Your task to perform on an android device: toggle translation in the chrome app Image 0: 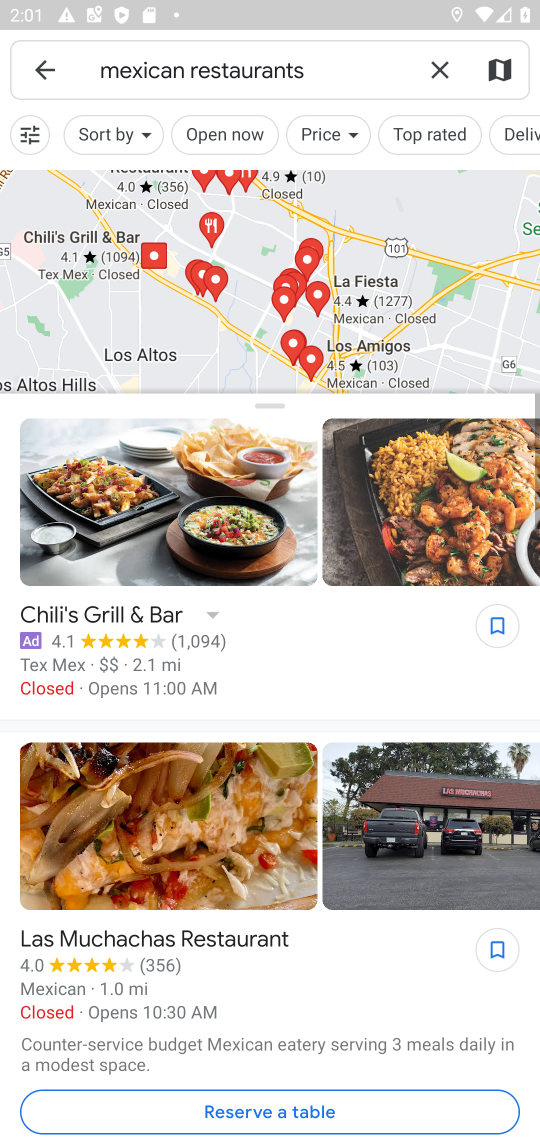
Step 0: press home button
Your task to perform on an android device: toggle translation in the chrome app Image 1: 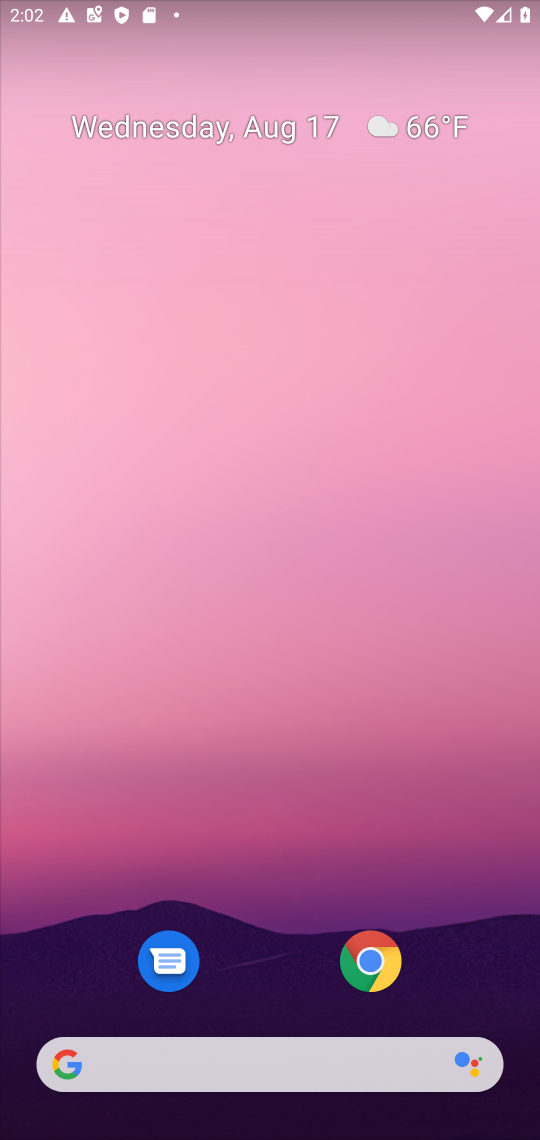
Step 1: click (391, 981)
Your task to perform on an android device: toggle translation in the chrome app Image 2: 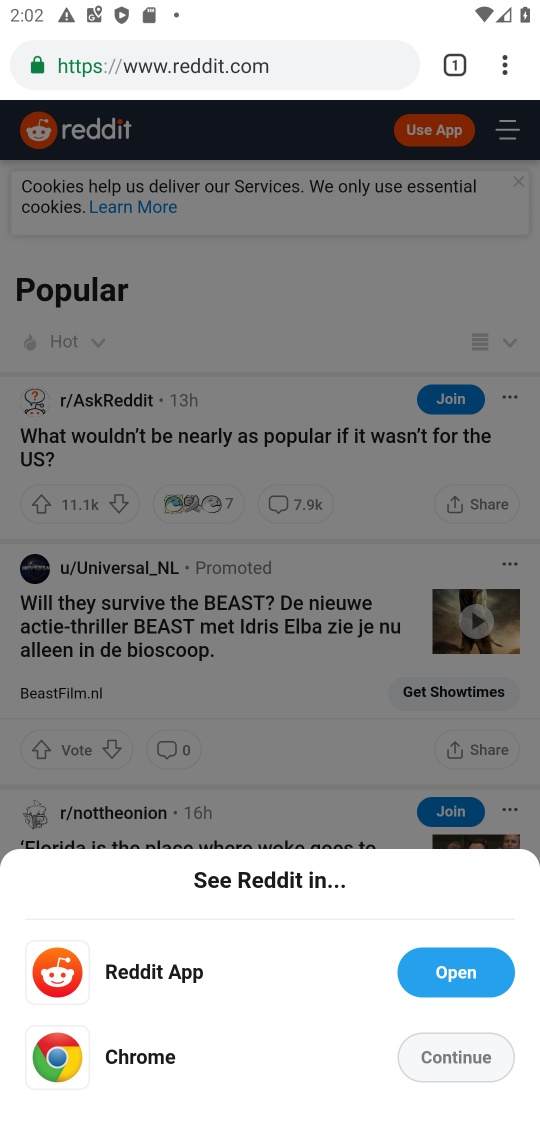
Step 2: click (510, 77)
Your task to perform on an android device: toggle translation in the chrome app Image 3: 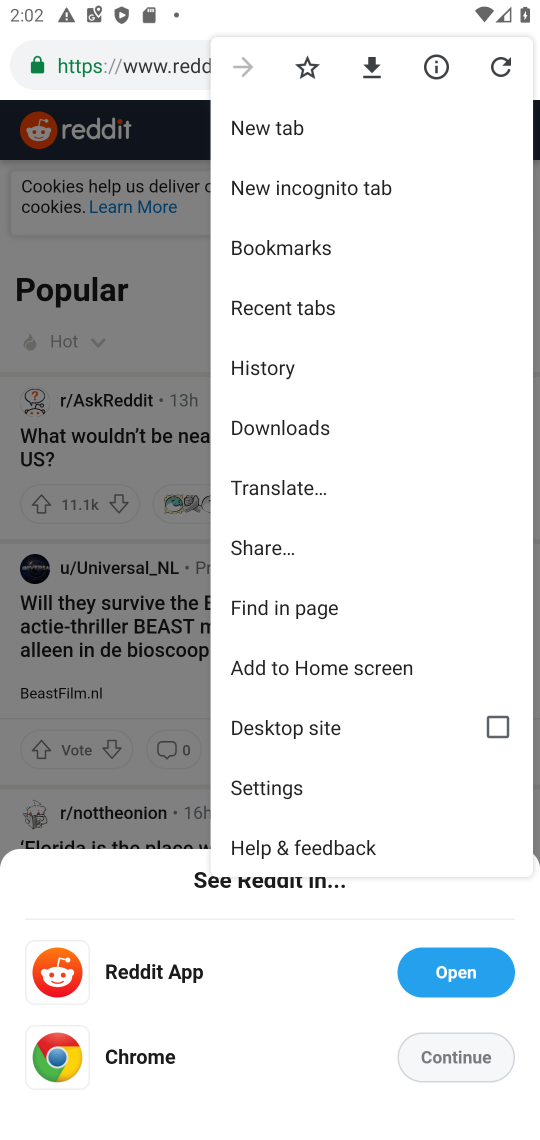
Step 3: click (294, 490)
Your task to perform on an android device: toggle translation in the chrome app Image 4: 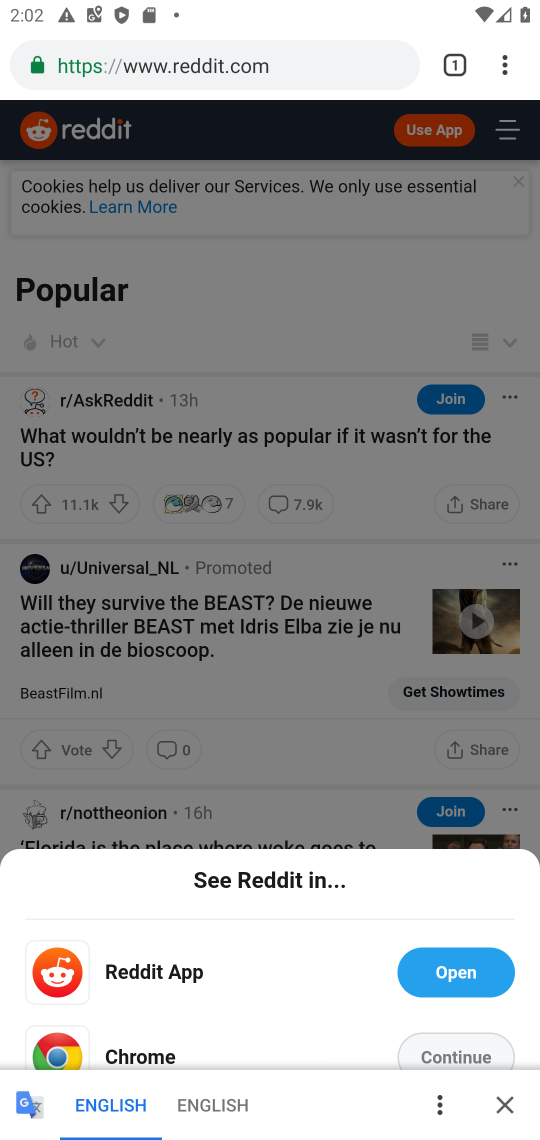
Step 4: click (294, 490)
Your task to perform on an android device: toggle translation in the chrome app Image 5: 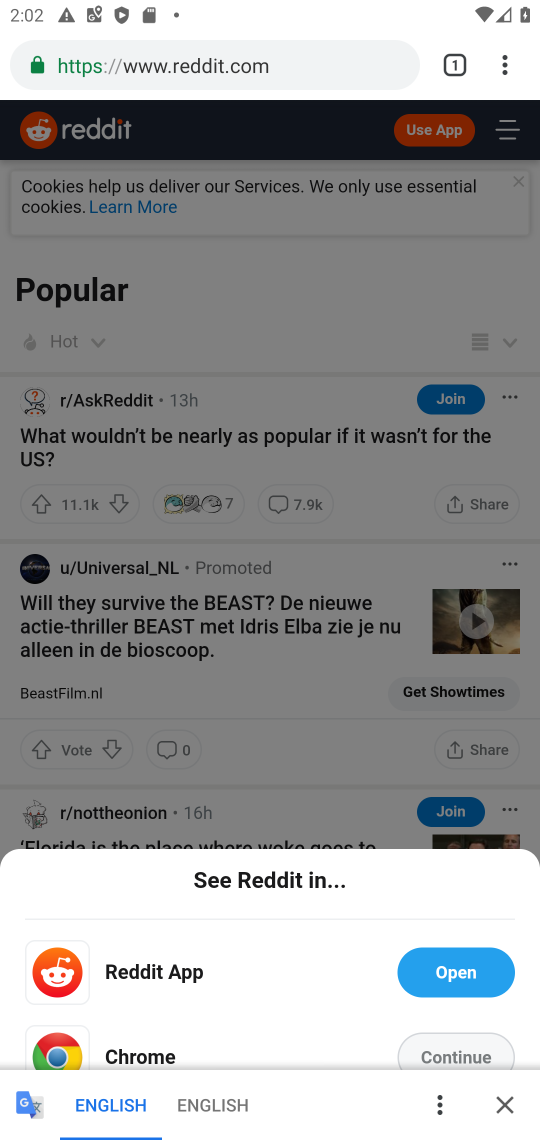
Step 5: click (430, 1104)
Your task to perform on an android device: toggle translation in the chrome app Image 6: 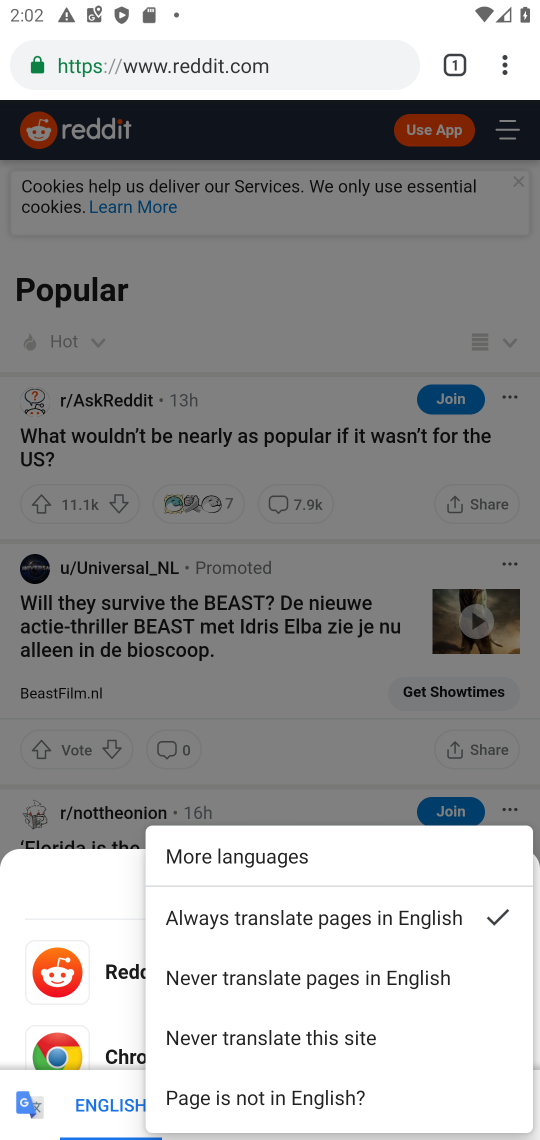
Step 6: click (366, 1032)
Your task to perform on an android device: toggle translation in the chrome app Image 7: 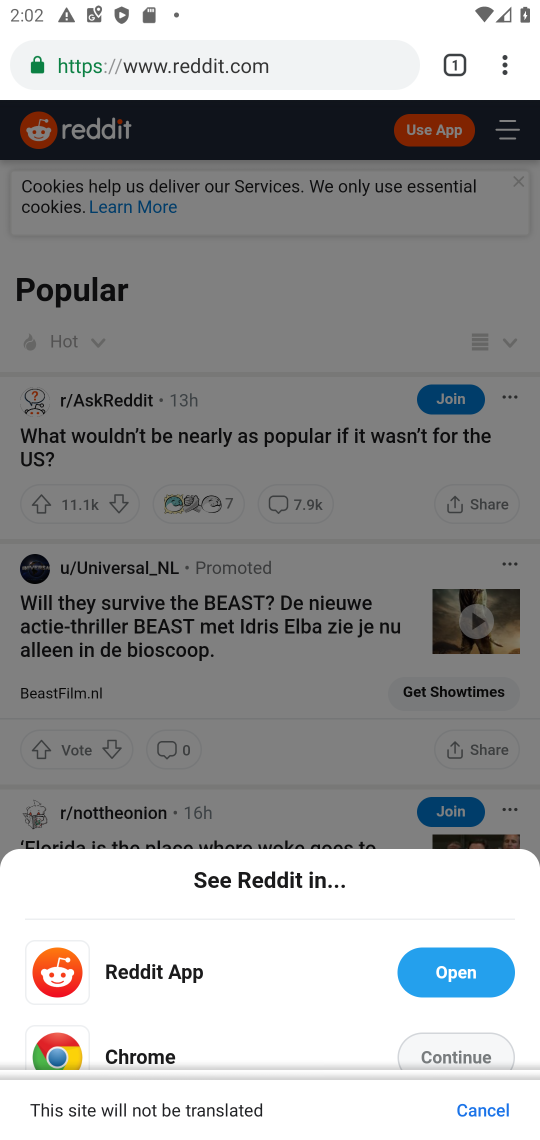
Step 7: task complete